Your task to perform on an android device: Open display settings Image 0: 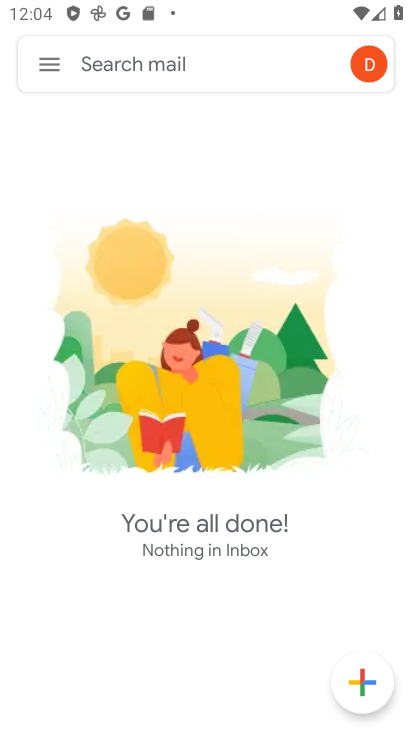
Step 0: press back button
Your task to perform on an android device: Open display settings Image 1: 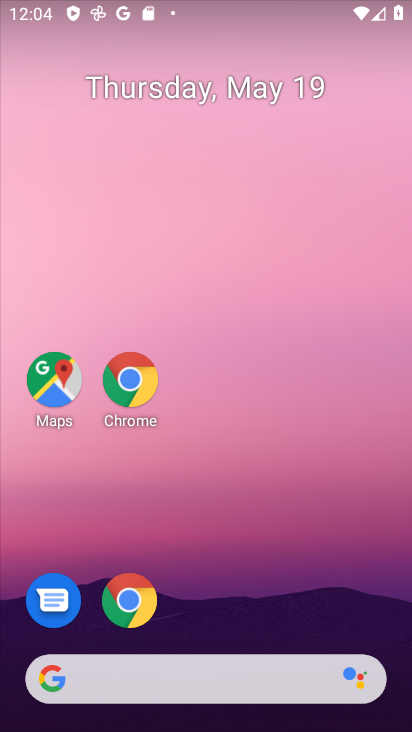
Step 1: drag from (237, 552) to (158, 117)
Your task to perform on an android device: Open display settings Image 2: 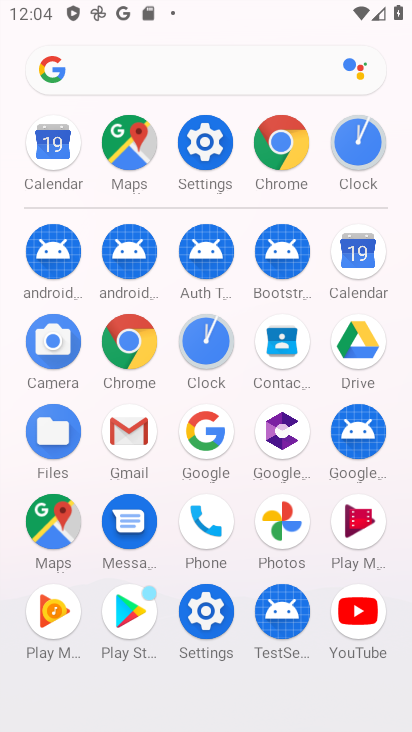
Step 2: click (196, 142)
Your task to perform on an android device: Open display settings Image 3: 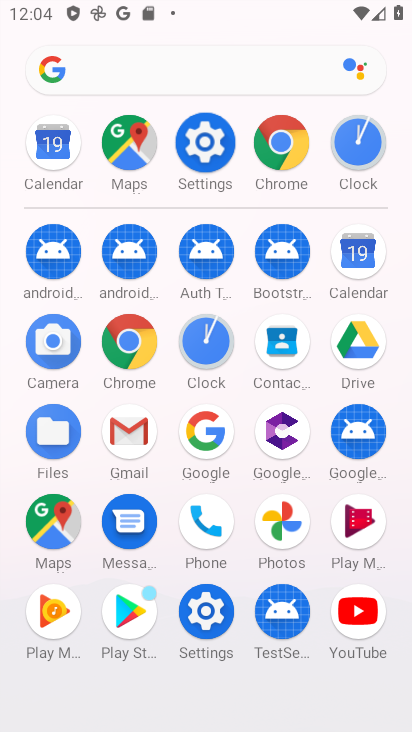
Step 3: click (196, 142)
Your task to perform on an android device: Open display settings Image 4: 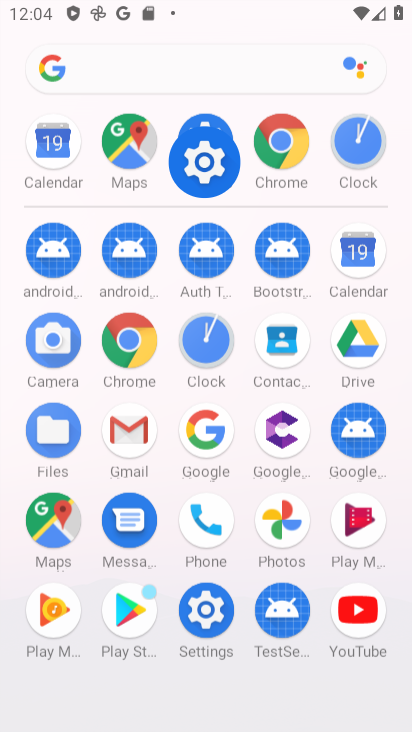
Step 4: click (200, 143)
Your task to perform on an android device: Open display settings Image 5: 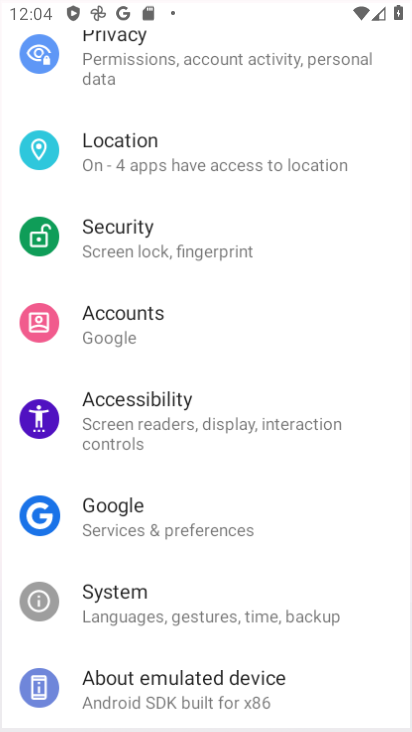
Step 5: click (208, 149)
Your task to perform on an android device: Open display settings Image 6: 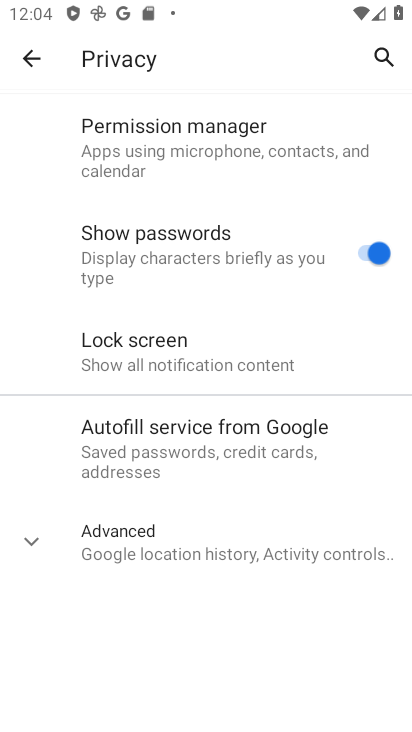
Step 6: click (22, 56)
Your task to perform on an android device: Open display settings Image 7: 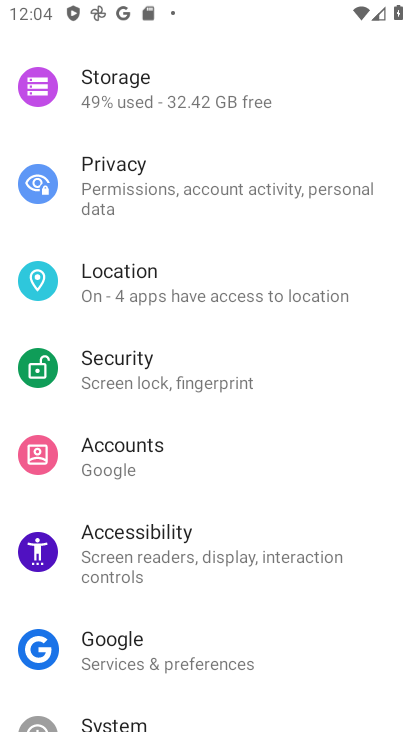
Step 7: drag from (126, 150) to (315, 525)
Your task to perform on an android device: Open display settings Image 8: 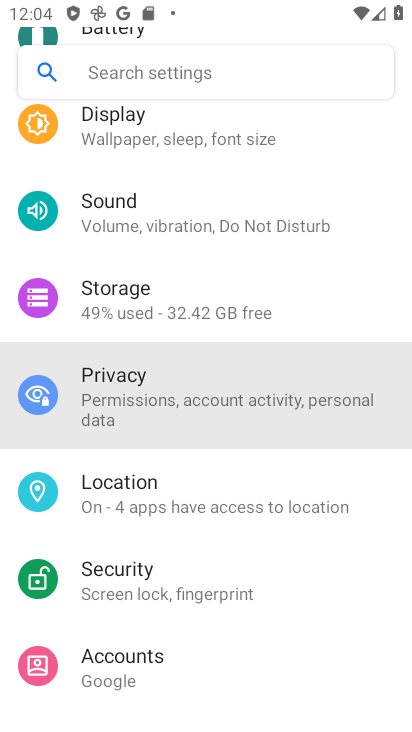
Step 8: drag from (146, 218) to (241, 504)
Your task to perform on an android device: Open display settings Image 9: 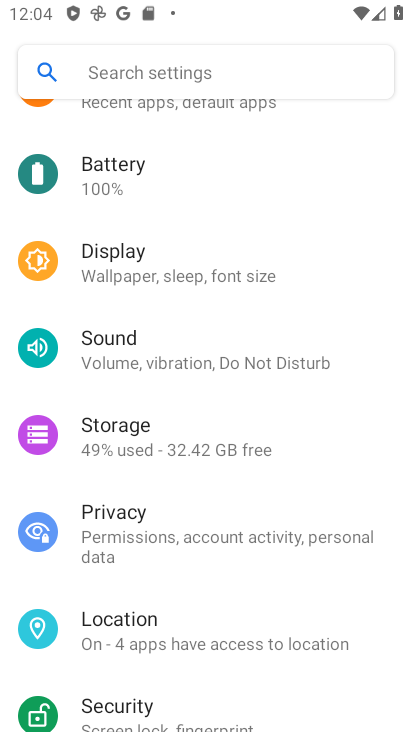
Step 9: click (124, 266)
Your task to perform on an android device: Open display settings Image 10: 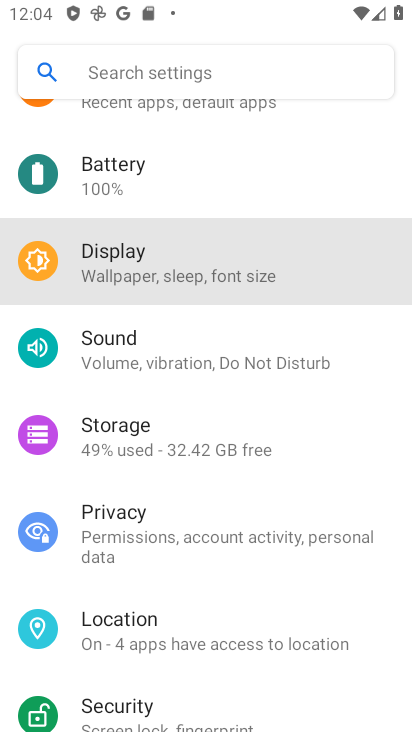
Step 10: click (124, 266)
Your task to perform on an android device: Open display settings Image 11: 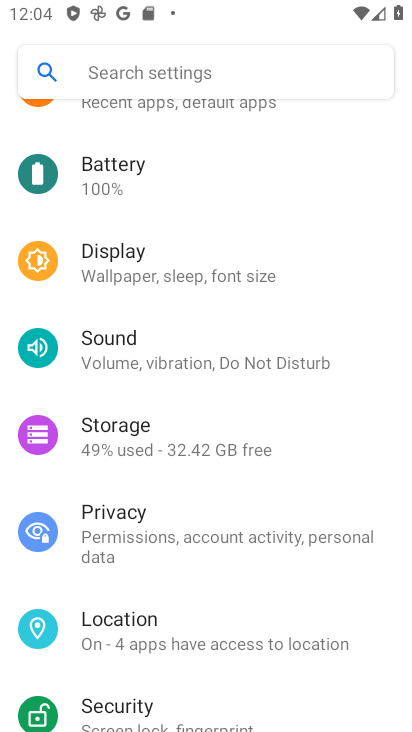
Step 11: click (128, 266)
Your task to perform on an android device: Open display settings Image 12: 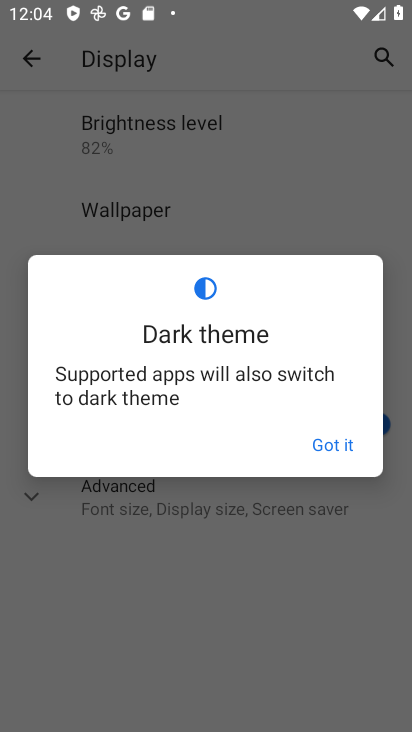
Step 12: click (339, 445)
Your task to perform on an android device: Open display settings Image 13: 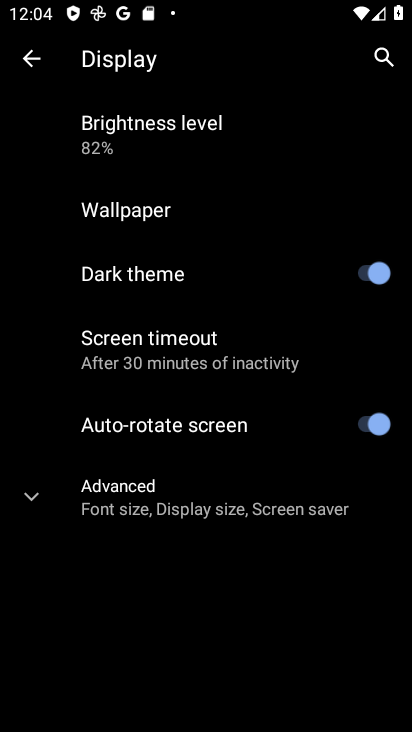
Step 13: click (371, 273)
Your task to perform on an android device: Open display settings Image 14: 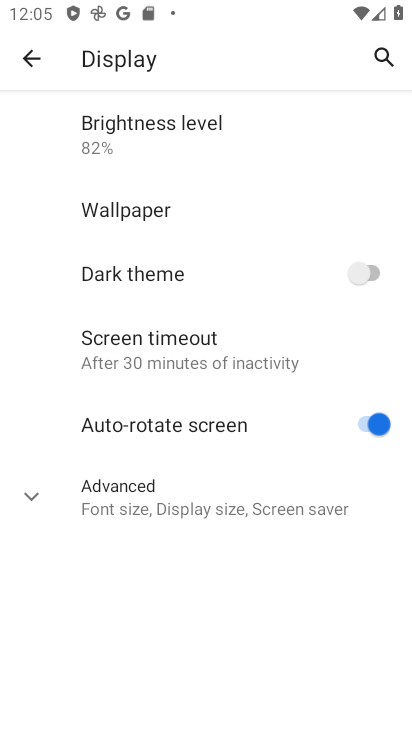
Step 14: task complete